Your task to perform on an android device: Add "sony triple a" to the cart on walmart.com, then select checkout. Image 0: 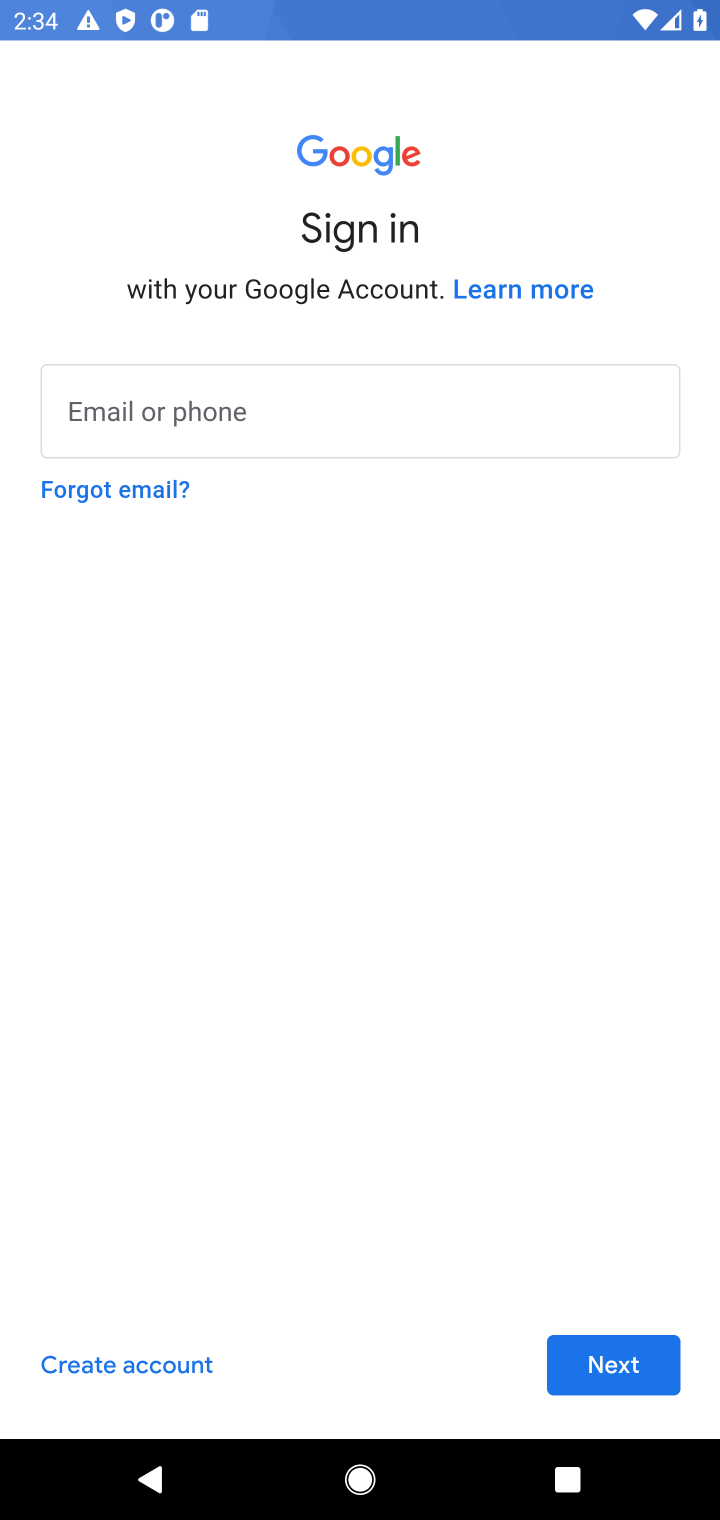
Step 0: task complete